Your task to perform on an android device: Open settings on Google Maps Image 0: 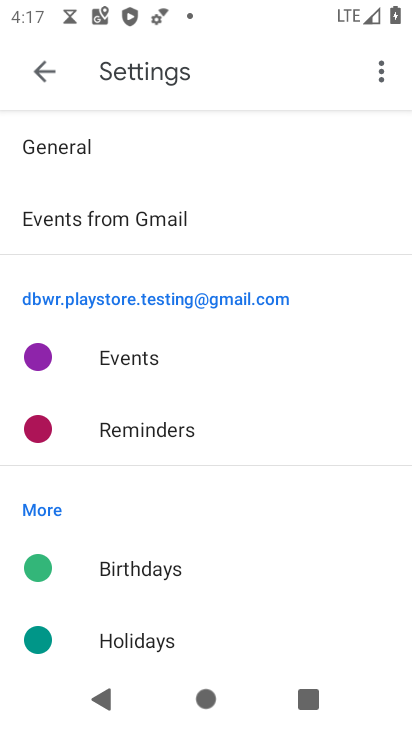
Step 0: press back button
Your task to perform on an android device: Open settings on Google Maps Image 1: 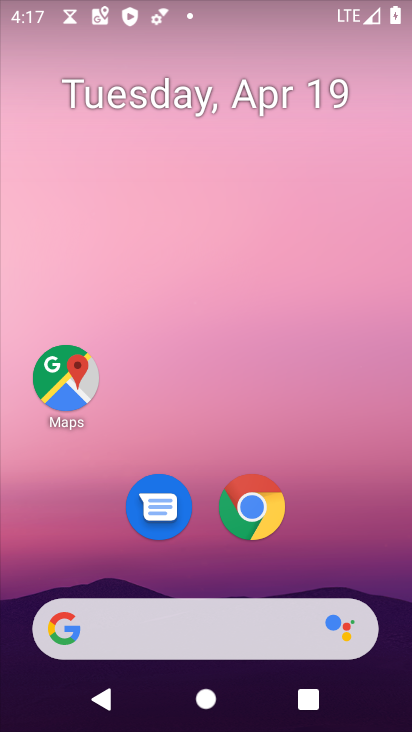
Step 1: drag from (352, 533) to (343, 45)
Your task to perform on an android device: Open settings on Google Maps Image 2: 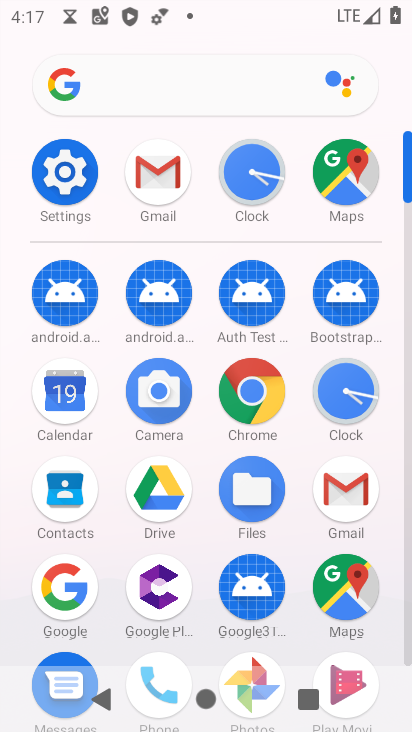
Step 2: click (323, 590)
Your task to perform on an android device: Open settings on Google Maps Image 3: 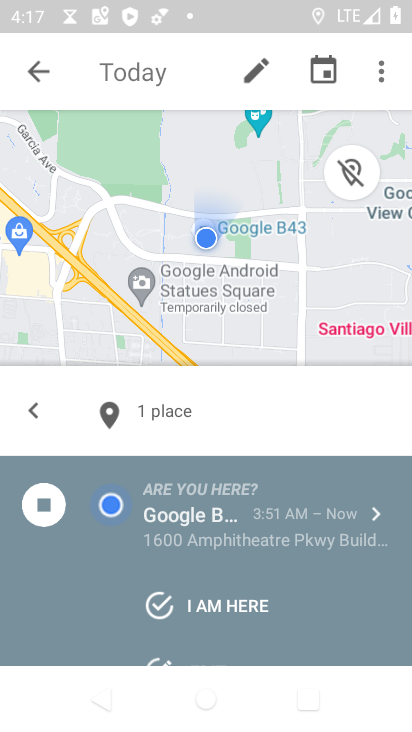
Step 3: click (45, 69)
Your task to perform on an android device: Open settings on Google Maps Image 4: 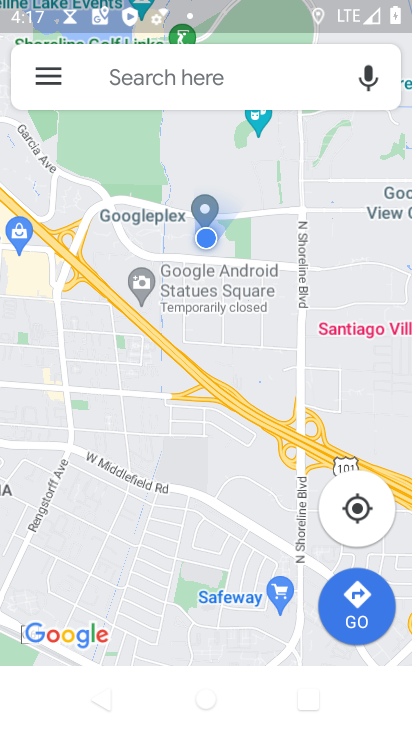
Step 4: click (46, 71)
Your task to perform on an android device: Open settings on Google Maps Image 5: 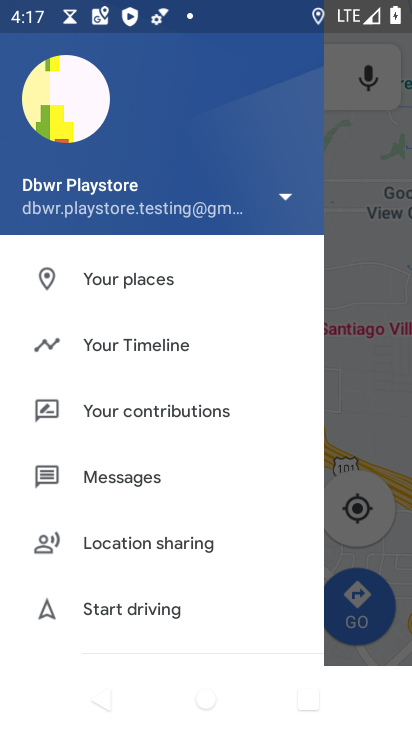
Step 5: drag from (168, 419) to (178, 285)
Your task to perform on an android device: Open settings on Google Maps Image 6: 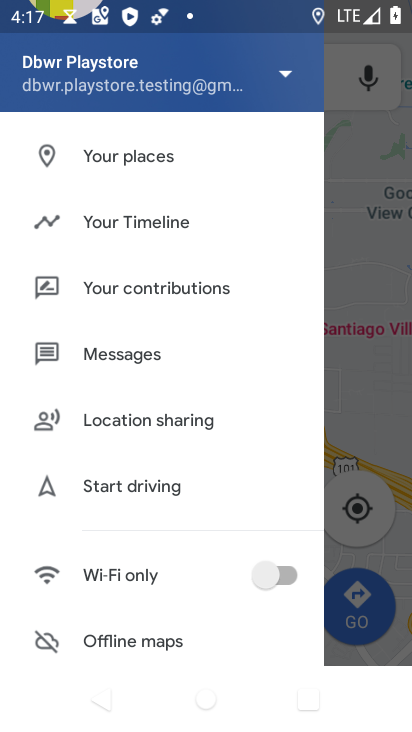
Step 6: drag from (178, 530) to (213, 309)
Your task to perform on an android device: Open settings on Google Maps Image 7: 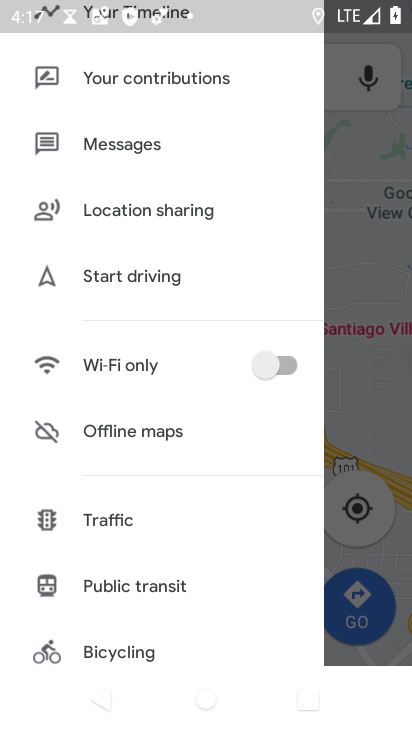
Step 7: drag from (170, 590) to (233, 398)
Your task to perform on an android device: Open settings on Google Maps Image 8: 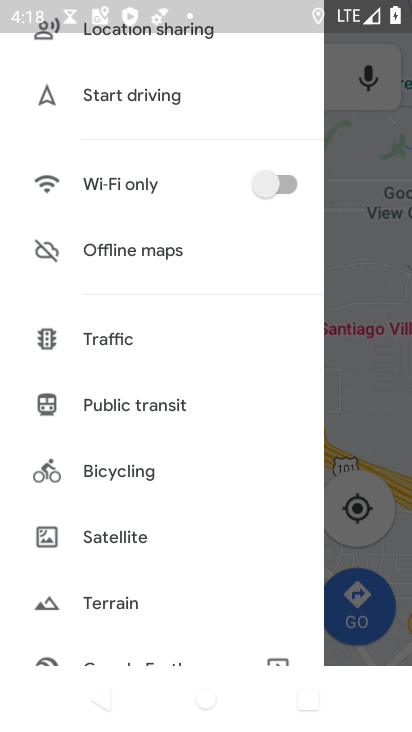
Step 8: drag from (119, 602) to (179, 378)
Your task to perform on an android device: Open settings on Google Maps Image 9: 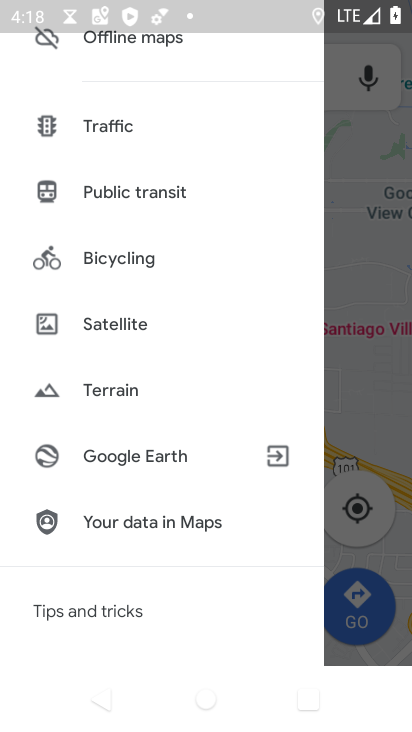
Step 9: drag from (154, 607) to (203, 396)
Your task to perform on an android device: Open settings on Google Maps Image 10: 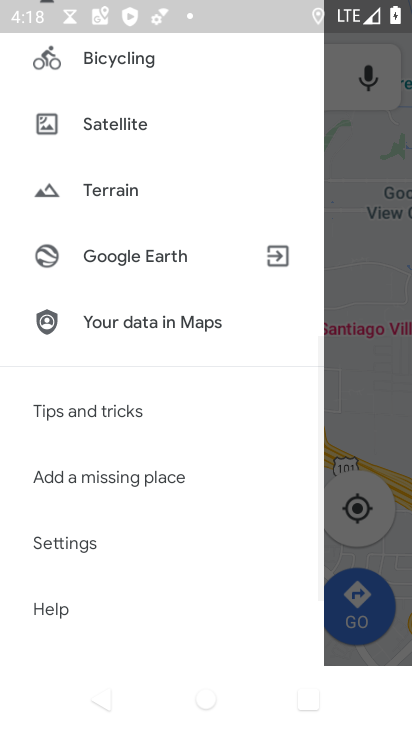
Step 10: click (178, 535)
Your task to perform on an android device: Open settings on Google Maps Image 11: 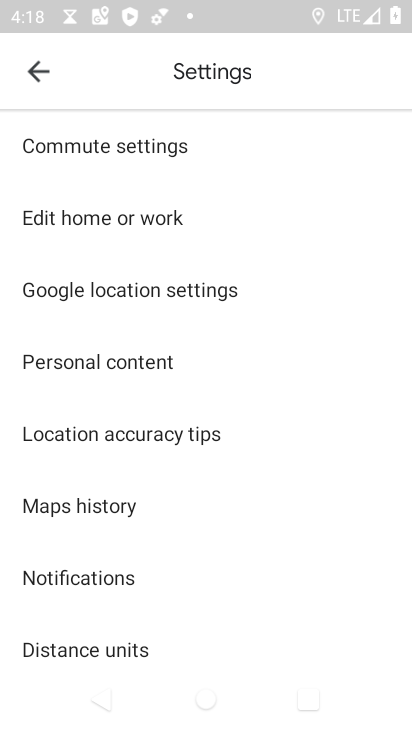
Step 11: task complete